Your task to perform on an android device: check google app version Image 0: 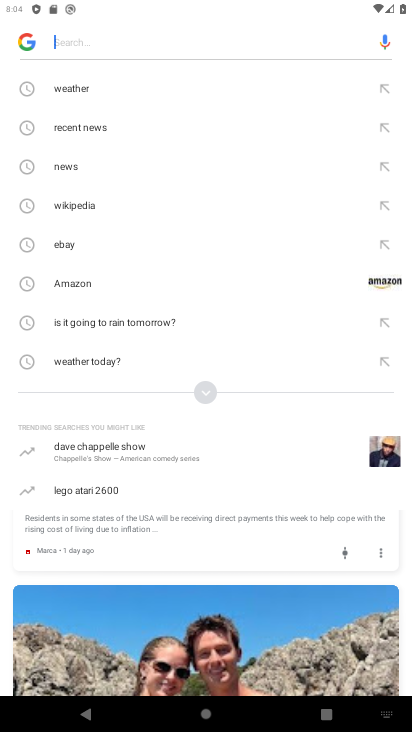
Step 0: press back button
Your task to perform on an android device: check google app version Image 1: 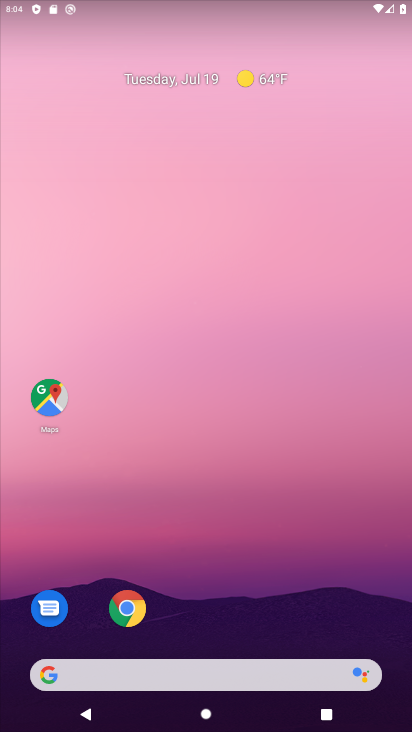
Step 1: drag from (257, 672) to (243, 81)
Your task to perform on an android device: check google app version Image 2: 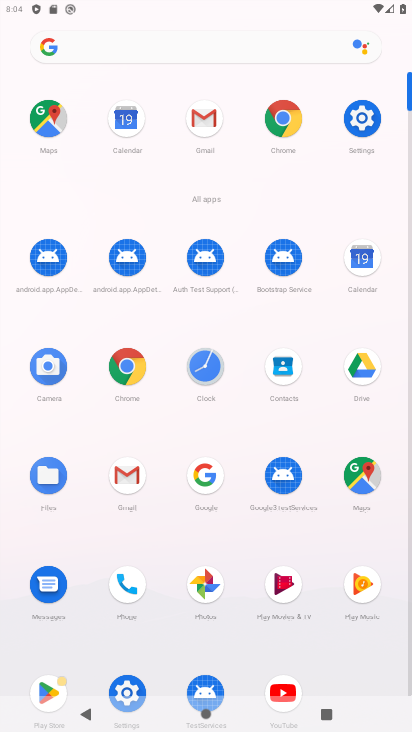
Step 2: click (214, 470)
Your task to perform on an android device: check google app version Image 3: 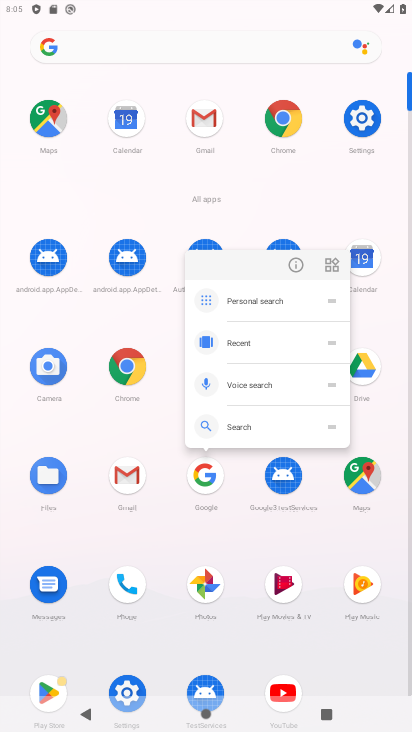
Step 3: click (293, 264)
Your task to perform on an android device: check google app version Image 4: 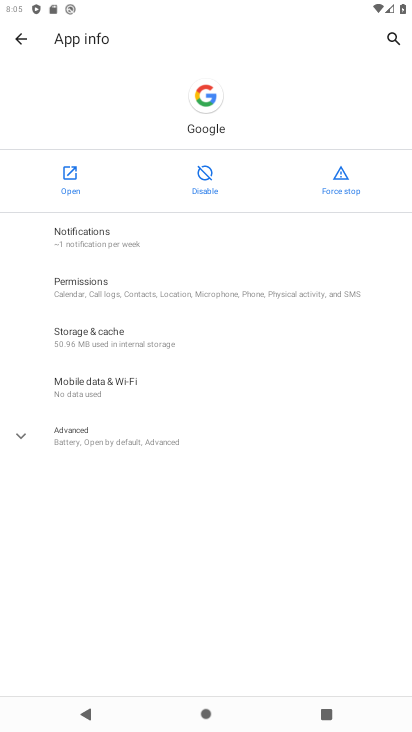
Step 4: click (158, 452)
Your task to perform on an android device: check google app version Image 5: 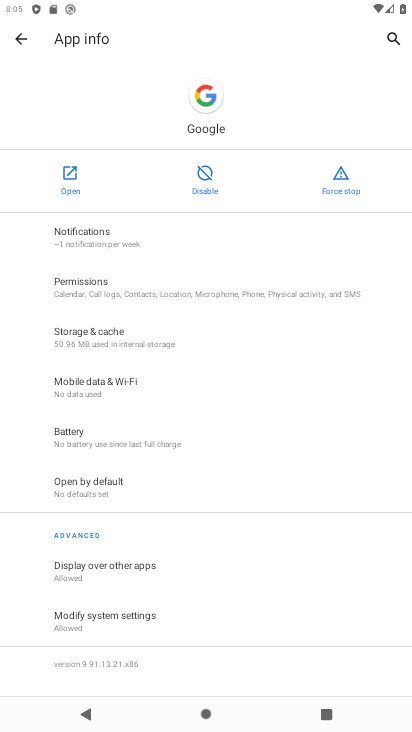
Step 5: task complete